Your task to perform on an android device: Open Google Maps and go to "Timeline" Image 0: 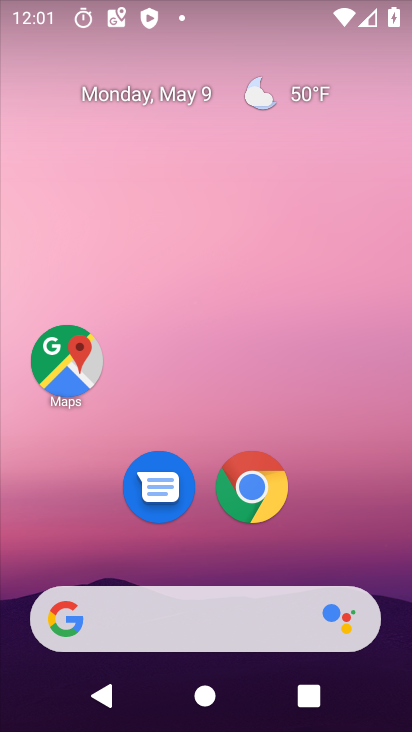
Step 0: click (68, 374)
Your task to perform on an android device: Open Google Maps and go to "Timeline" Image 1: 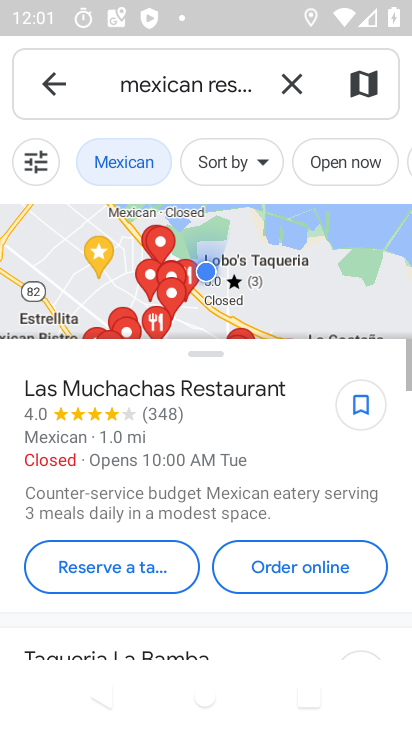
Step 1: press back button
Your task to perform on an android device: Open Google Maps and go to "Timeline" Image 2: 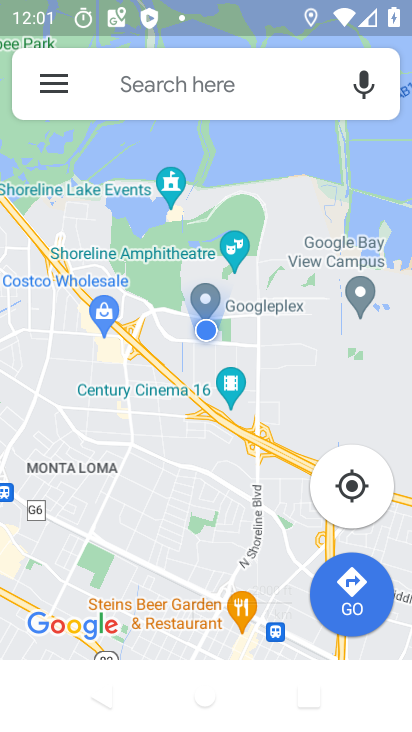
Step 2: click (51, 87)
Your task to perform on an android device: Open Google Maps and go to "Timeline" Image 3: 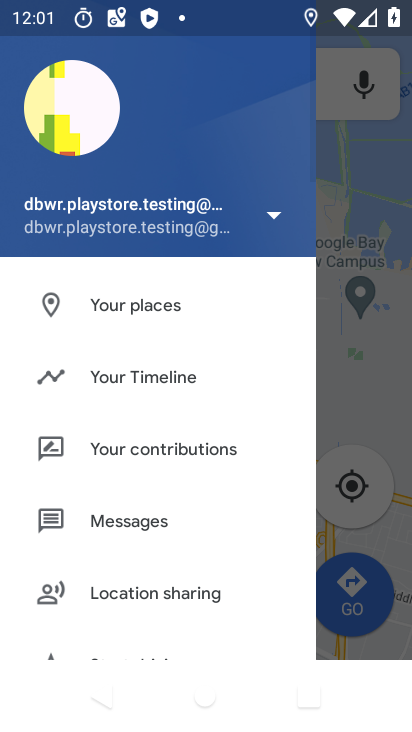
Step 3: click (174, 375)
Your task to perform on an android device: Open Google Maps and go to "Timeline" Image 4: 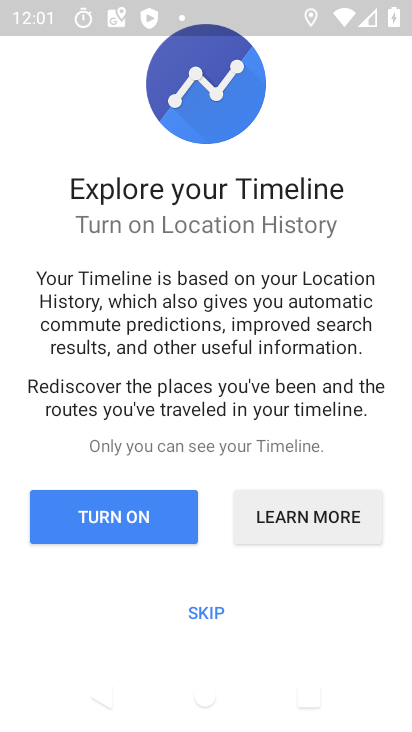
Step 4: click (217, 615)
Your task to perform on an android device: Open Google Maps and go to "Timeline" Image 5: 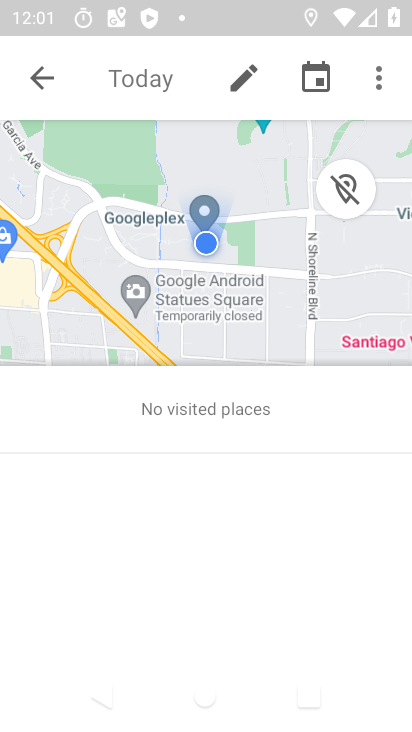
Step 5: task complete